Your task to perform on an android device: Go to ESPN.com Image 0: 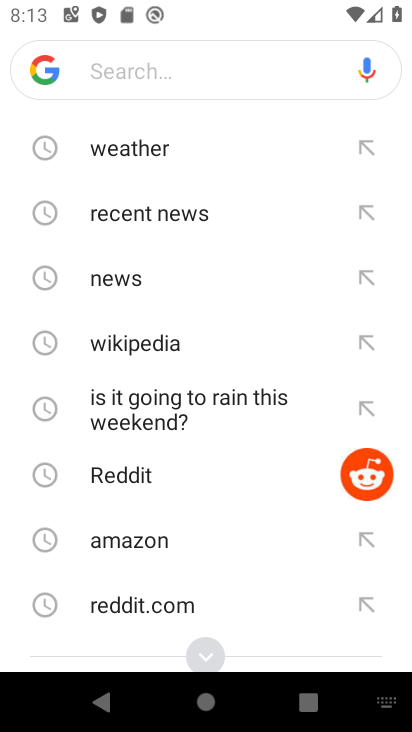
Step 0: press home button
Your task to perform on an android device: Go to ESPN.com Image 1: 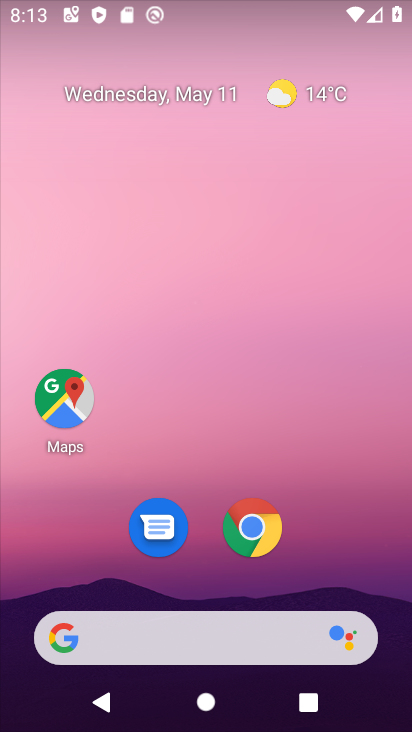
Step 1: click (251, 539)
Your task to perform on an android device: Go to ESPN.com Image 2: 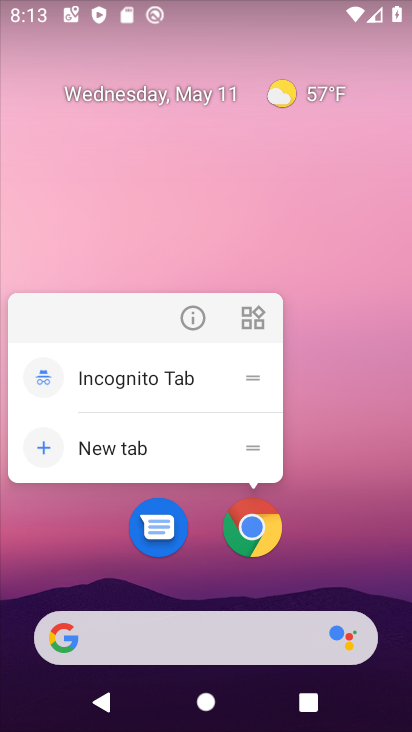
Step 2: click (262, 527)
Your task to perform on an android device: Go to ESPN.com Image 3: 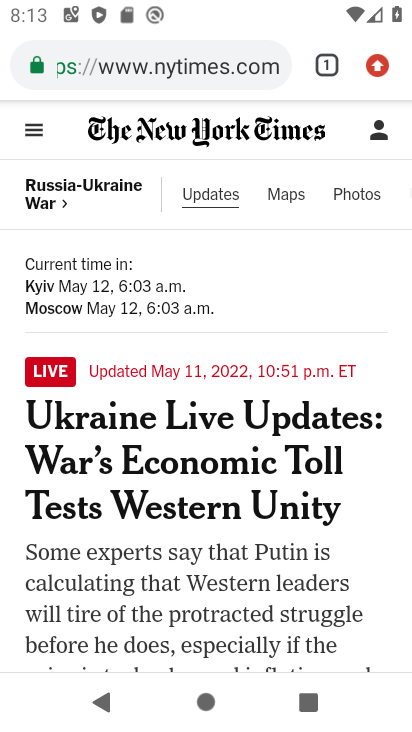
Step 3: click (107, 61)
Your task to perform on an android device: Go to ESPN.com Image 4: 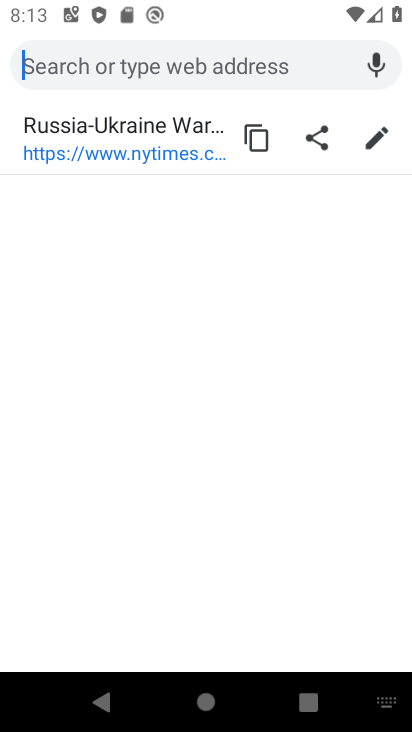
Step 4: type "espn.com"
Your task to perform on an android device: Go to ESPN.com Image 5: 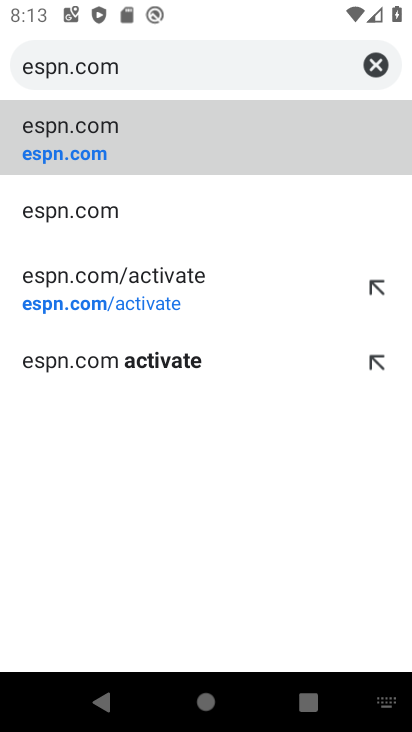
Step 5: click (94, 158)
Your task to perform on an android device: Go to ESPN.com Image 6: 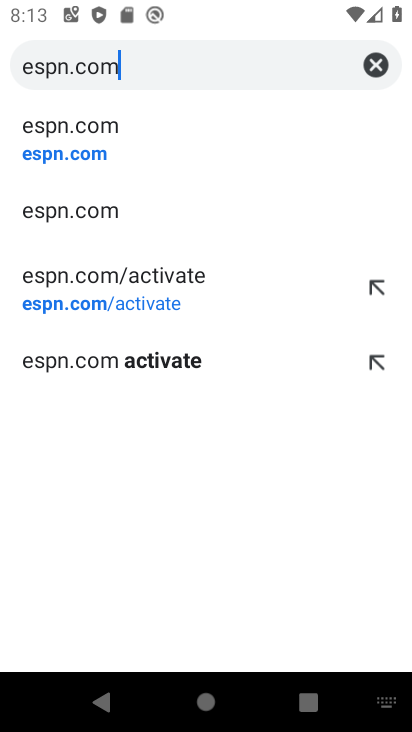
Step 6: click (81, 153)
Your task to perform on an android device: Go to ESPN.com Image 7: 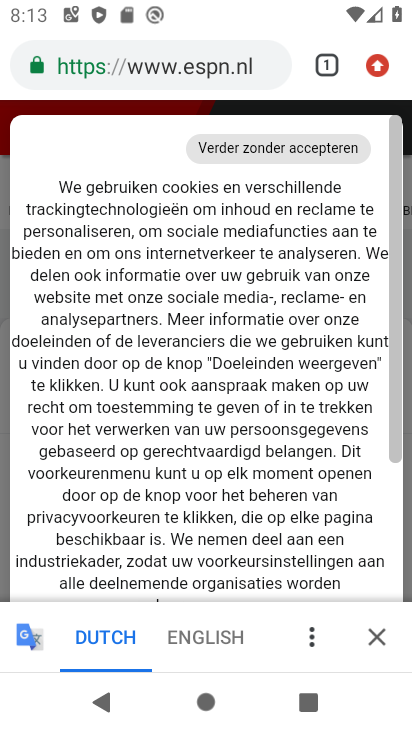
Step 7: task complete